Your task to perform on an android device: Add "razer kraken" to the cart on bestbuy.com Image 0: 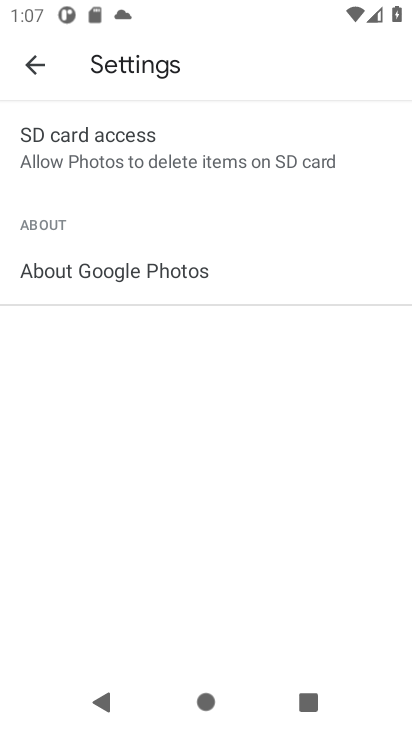
Step 0: press home button
Your task to perform on an android device: Add "razer kraken" to the cart on bestbuy.com Image 1: 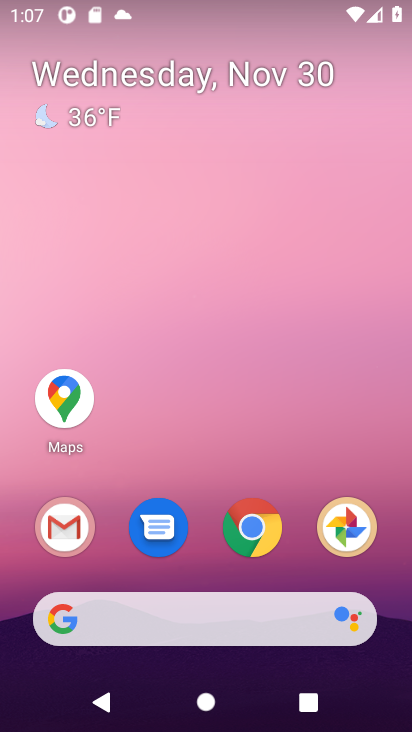
Step 1: click (255, 518)
Your task to perform on an android device: Add "razer kraken" to the cart on bestbuy.com Image 2: 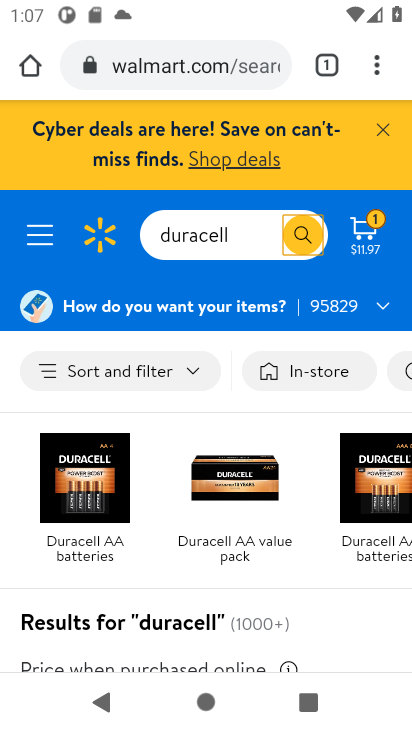
Step 2: click (232, 57)
Your task to perform on an android device: Add "razer kraken" to the cart on bestbuy.com Image 3: 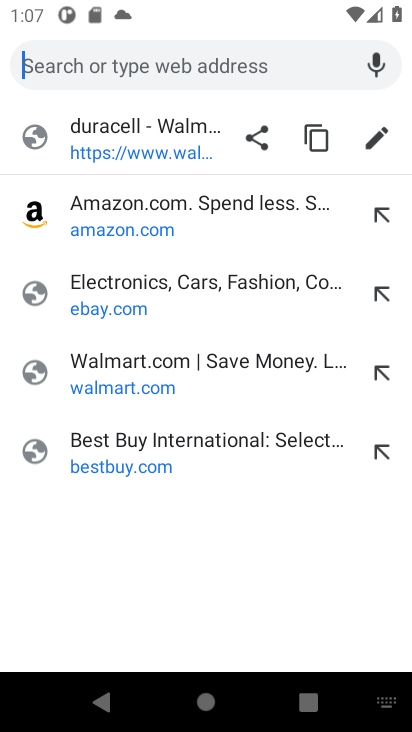
Step 3: type "bestbuy"
Your task to perform on an android device: Add "razer kraken" to the cart on bestbuy.com Image 4: 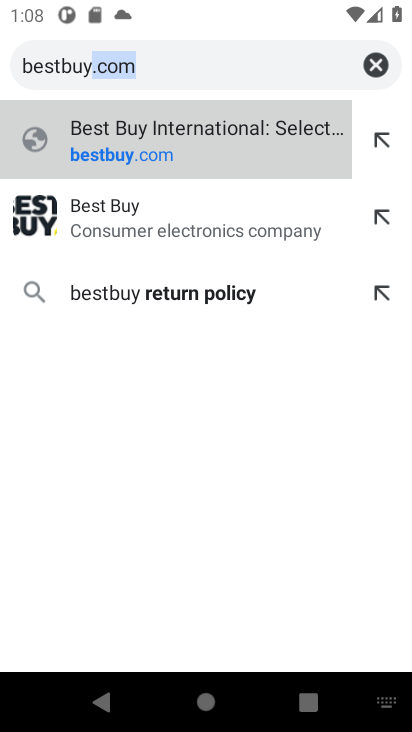
Step 4: click (99, 169)
Your task to perform on an android device: Add "razer kraken" to the cart on bestbuy.com Image 5: 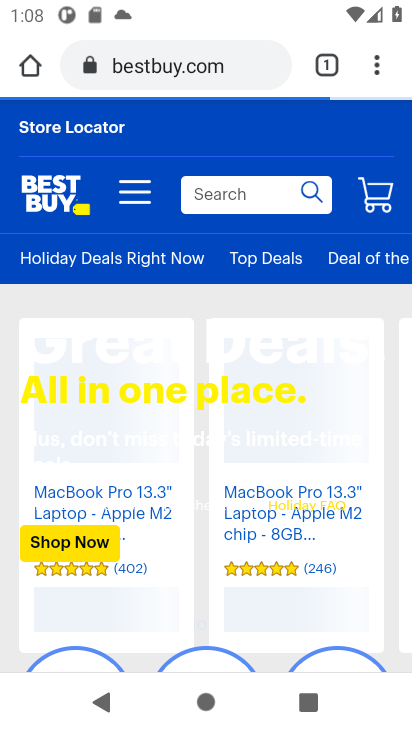
Step 5: click (260, 193)
Your task to perform on an android device: Add "razer kraken" to the cart on bestbuy.com Image 6: 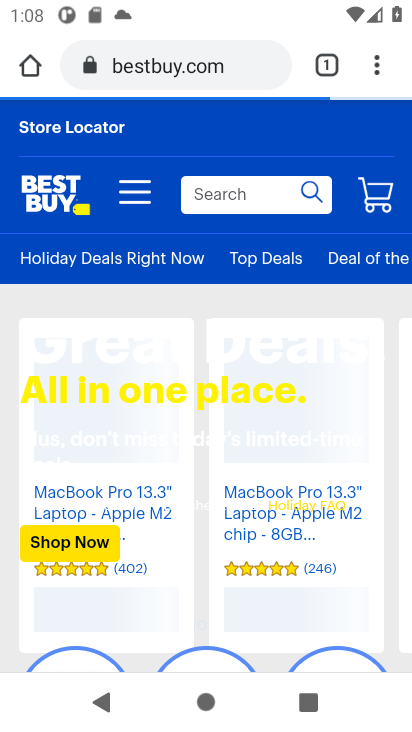
Step 6: click (253, 175)
Your task to perform on an android device: Add "razer kraken" to the cart on bestbuy.com Image 7: 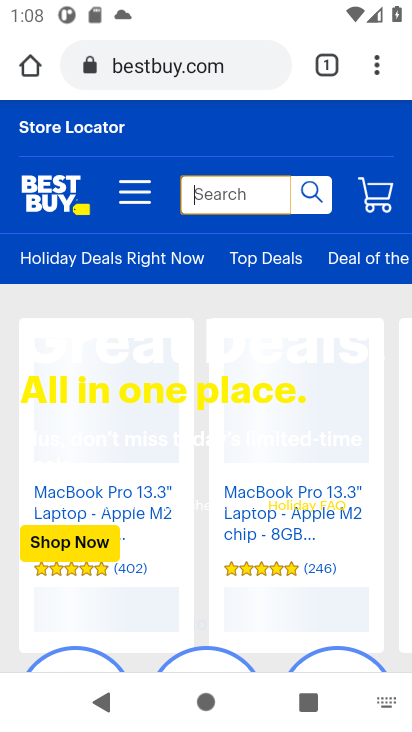
Step 7: click (251, 177)
Your task to perform on an android device: Add "razer kraken" to the cart on bestbuy.com Image 8: 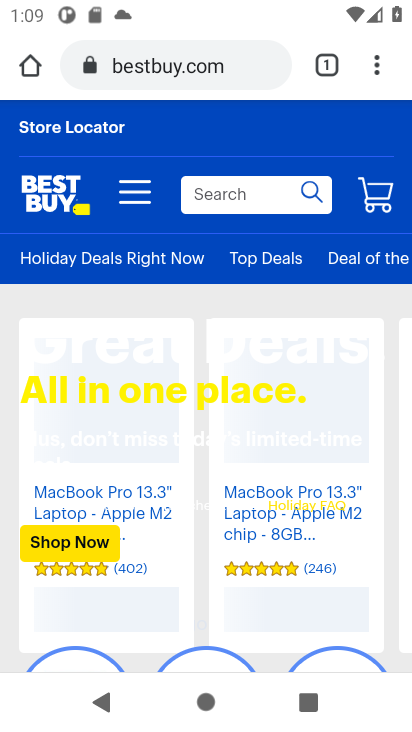
Step 8: click (244, 182)
Your task to perform on an android device: Add "razer kraken" to the cart on bestbuy.com Image 9: 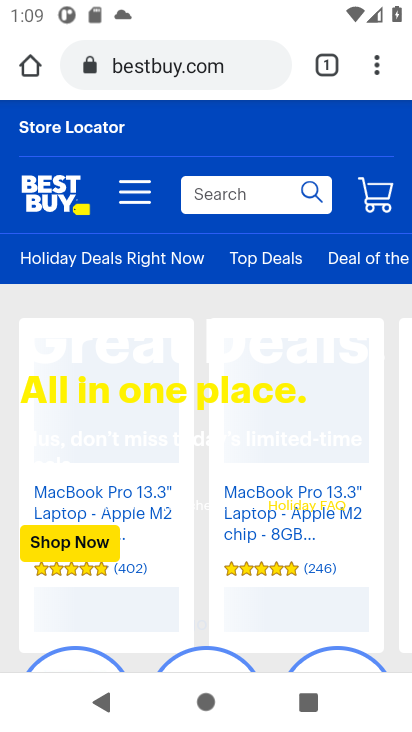
Step 9: type "razer karken"
Your task to perform on an android device: Add "razer kraken" to the cart on bestbuy.com Image 10: 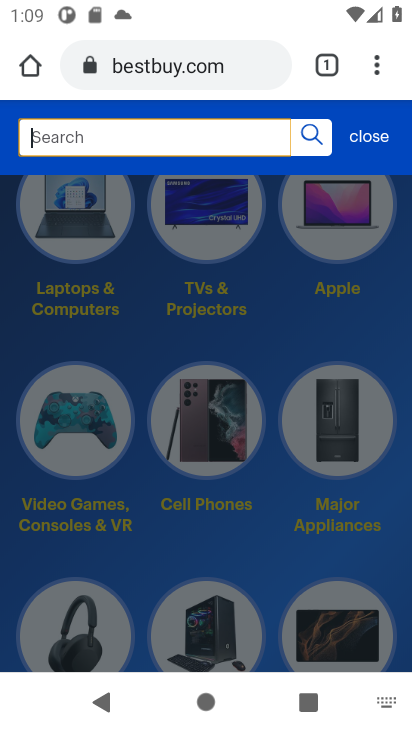
Step 10: task complete